Your task to perform on an android device: check battery use Image 0: 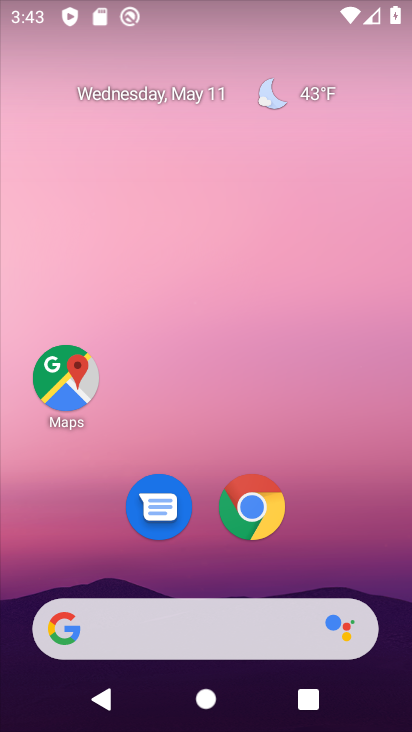
Step 0: drag from (393, 625) to (354, 93)
Your task to perform on an android device: check battery use Image 1: 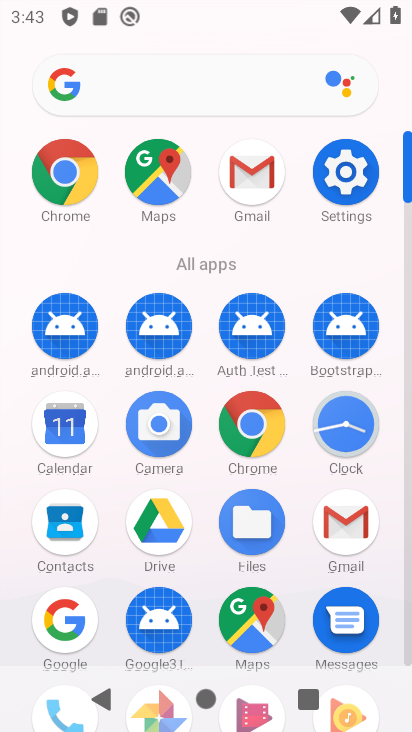
Step 1: click (407, 645)
Your task to perform on an android device: check battery use Image 2: 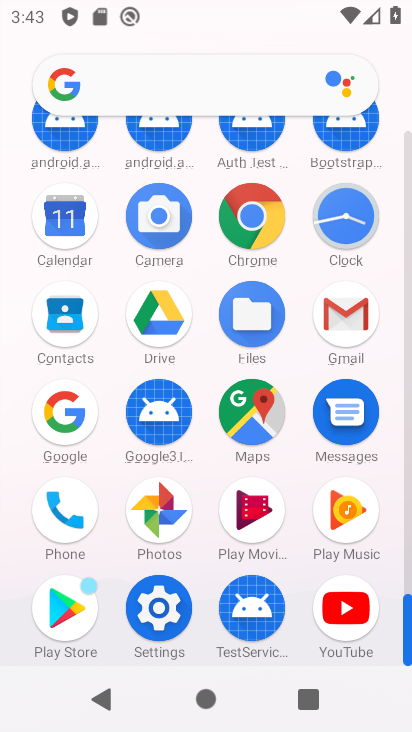
Step 2: click (158, 608)
Your task to perform on an android device: check battery use Image 3: 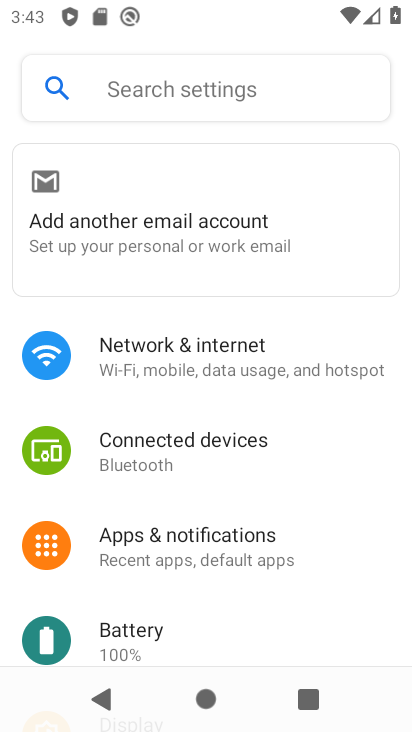
Step 3: drag from (337, 537) to (357, 141)
Your task to perform on an android device: check battery use Image 4: 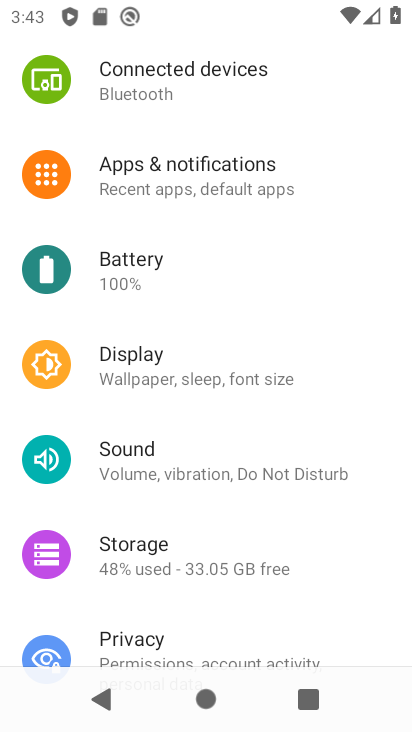
Step 4: click (132, 269)
Your task to perform on an android device: check battery use Image 5: 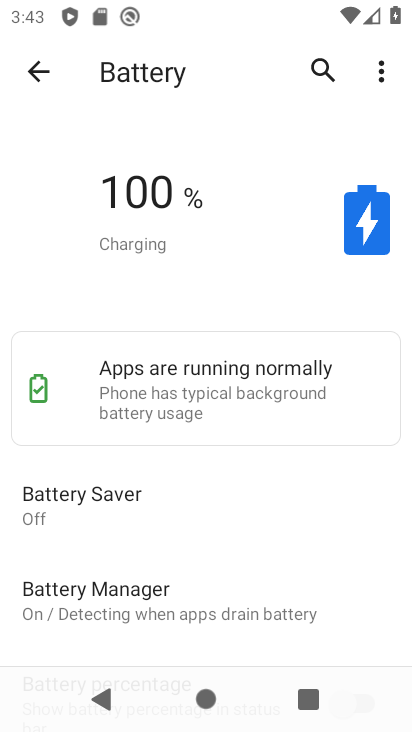
Step 5: drag from (267, 572) to (258, 347)
Your task to perform on an android device: check battery use Image 6: 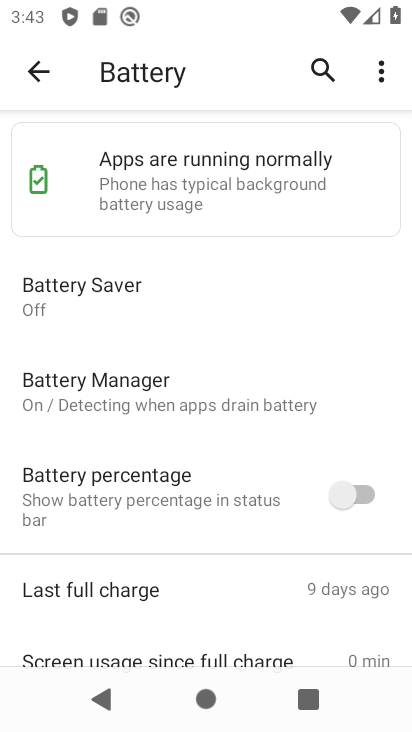
Step 6: click (380, 69)
Your task to perform on an android device: check battery use Image 7: 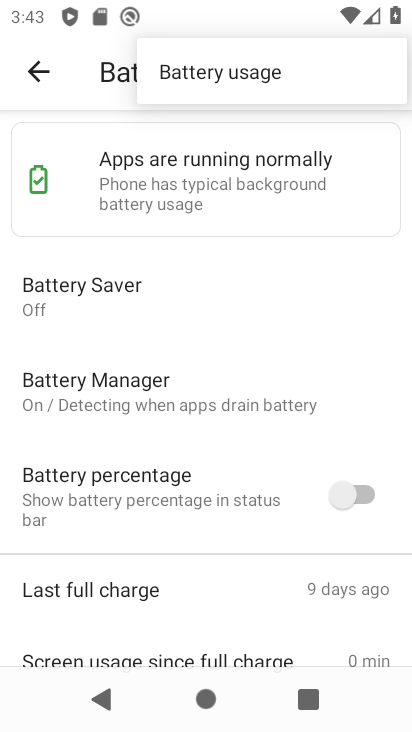
Step 7: click (187, 72)
Your task to perform on an android device: check battery use Image 8: 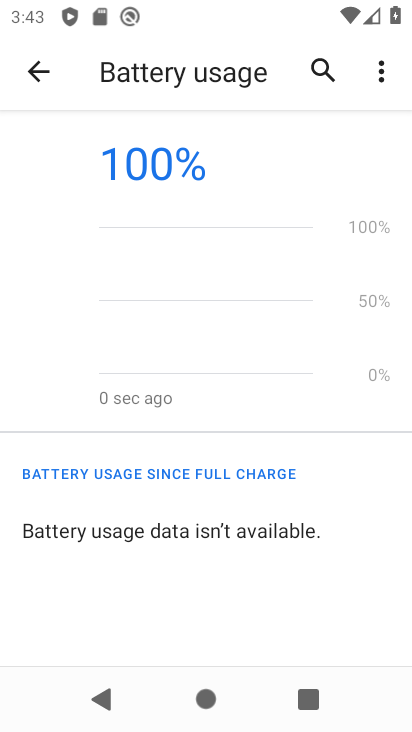
Step 8: task complete